Your task to perform on an android device: Show me the alarms in the clock app Image 0: 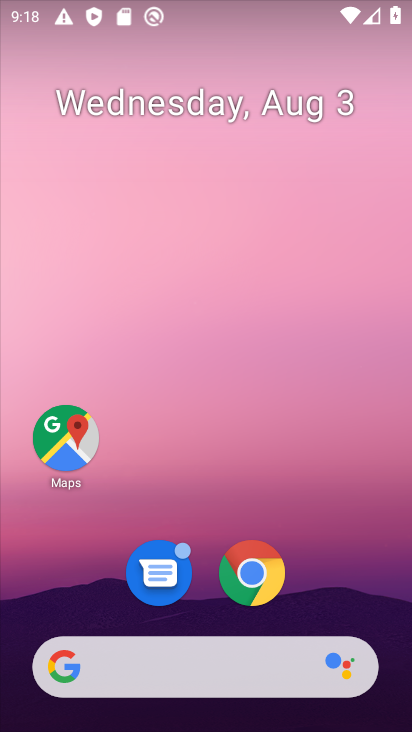
Step 0: drag from (186, 670) to (245, 89)
Your task to perform on an android device: Show me the alarms in the clock app Image 1: 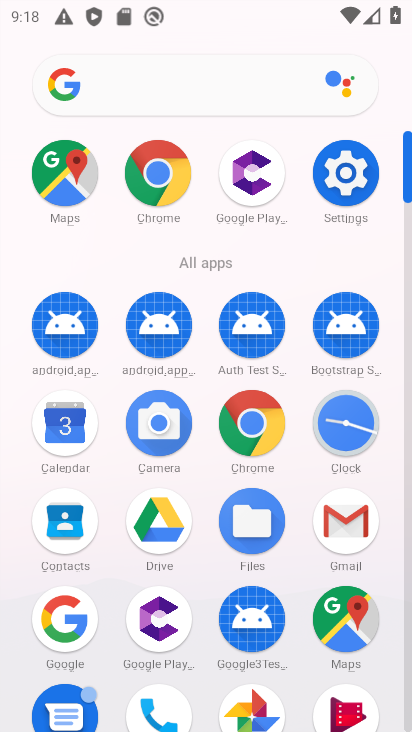
Step 1: click (332, 457)
Your task to perform on an android device: Show me the alarms in the clock app Image 2: 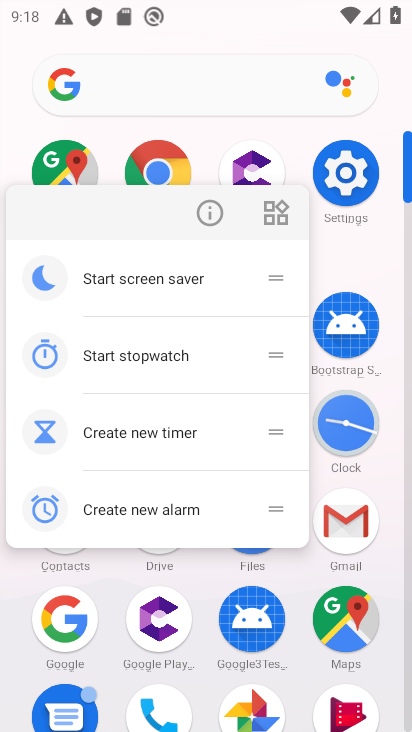
Step 2: click (348, 423)
Your task to perform on an android device: Show me the alarms in the clock app Image 3: 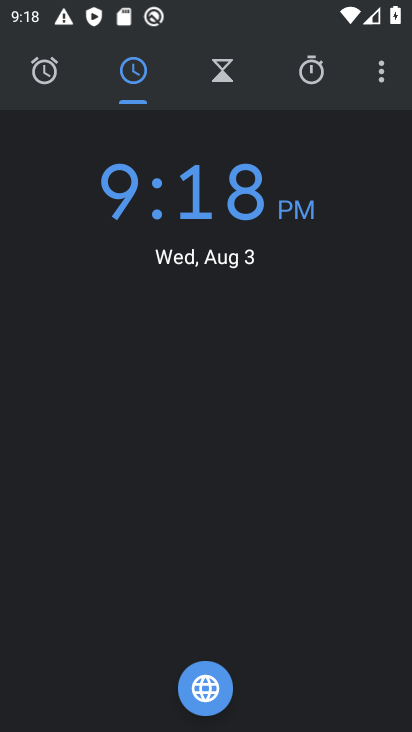
Step 3: click (52, 81)
Your task to perform on an android device: Show me the alarms in the clock app Image 4: 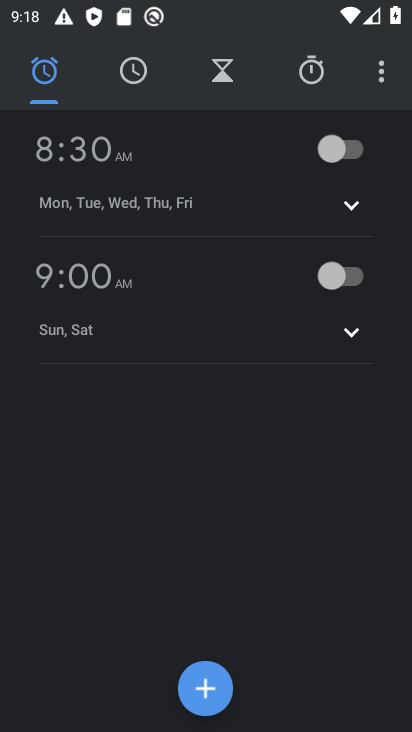
Step 4: task complete